Your task to perform on an android device: Open battery settings Image 0: 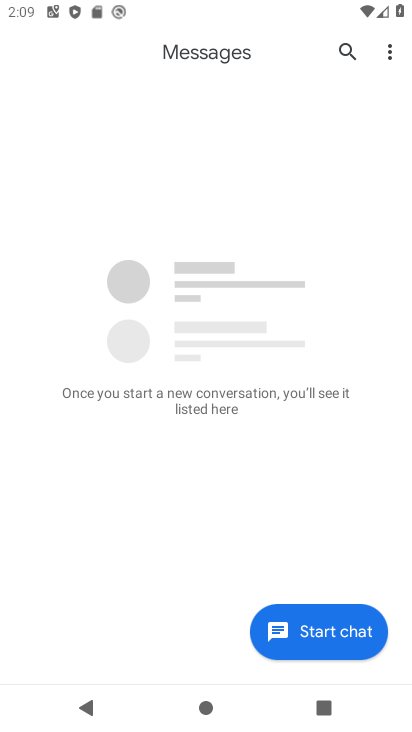
Step 0: press home button
Your task to perform on an android device: Open battery settings Image 1: 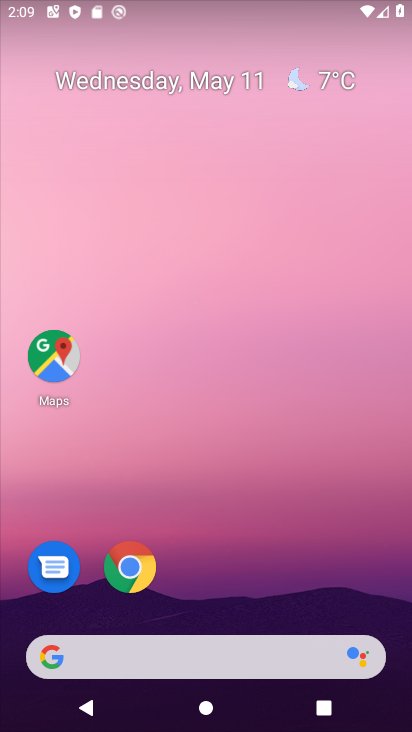
Step 1: drag from (243, 463) to (183, 199)
Your task to perform on an android device: Open battery settings Image 2: 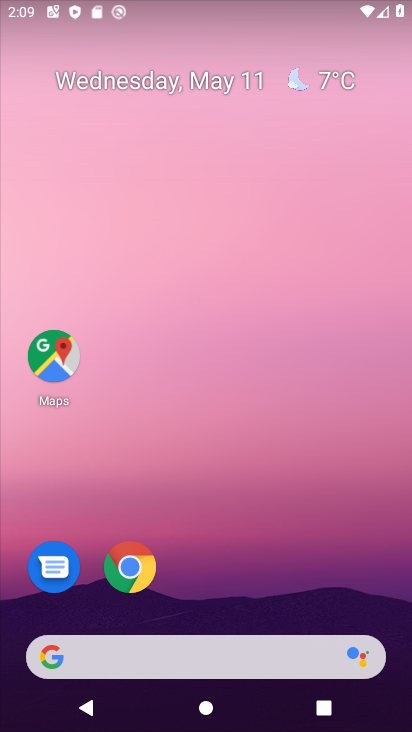
Step 2: drag from (234, 569) to (251, 154)
Your task to perform on an android device: Open battery settings Image 3: 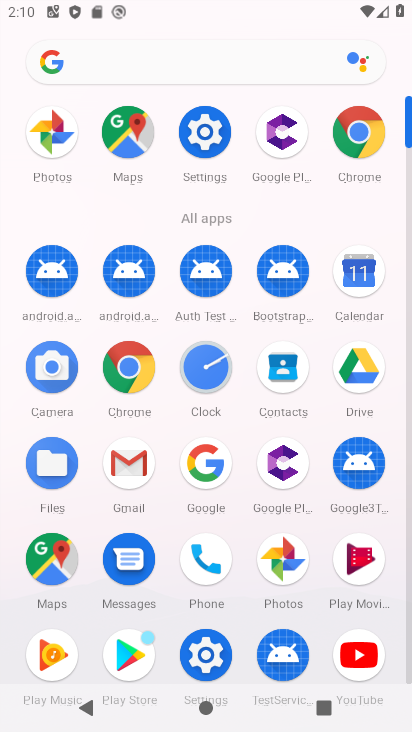
Step 3: click (206, 664)
Your task to perform on an android device: Open battery settings Image 4: 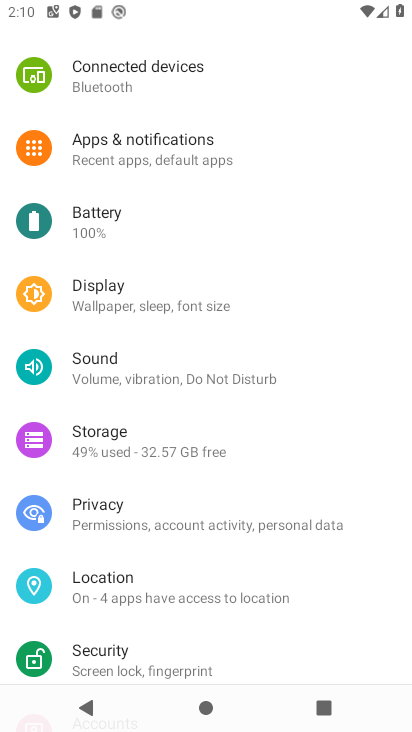
Step 4: drag from (202, 615) to (257, 384)
Your task to perform on an android device: Open battery settings Image 5: 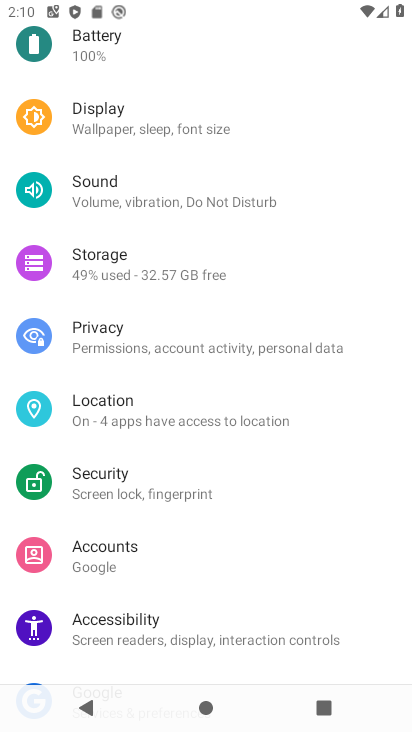
Step 5: drag from (197, 247) to (194, 369)
Your task to perform on an android device: Open battery settings Image 6: 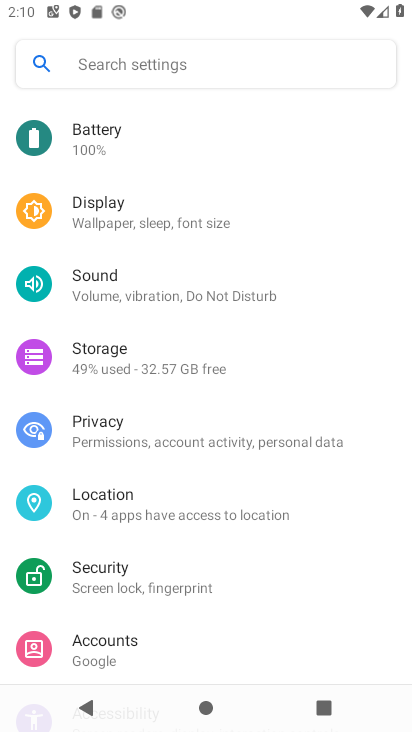
Step 6: click (124, 145)
Your task to perform on an android device: Open battery settings Image 7: 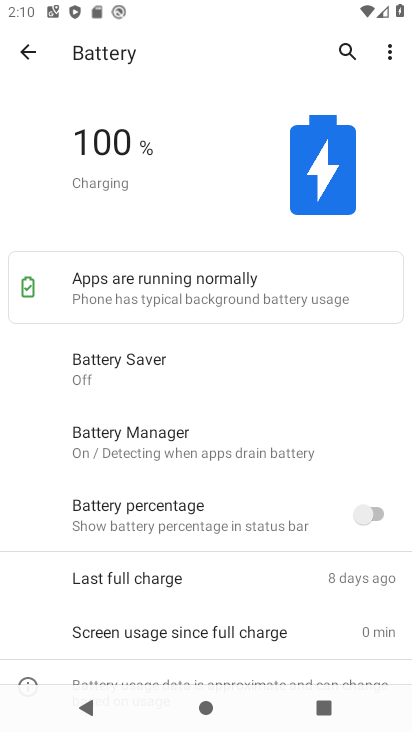
Step 7: task complete